Your task to perform on an android device: Go to Reddit.com Image 0: 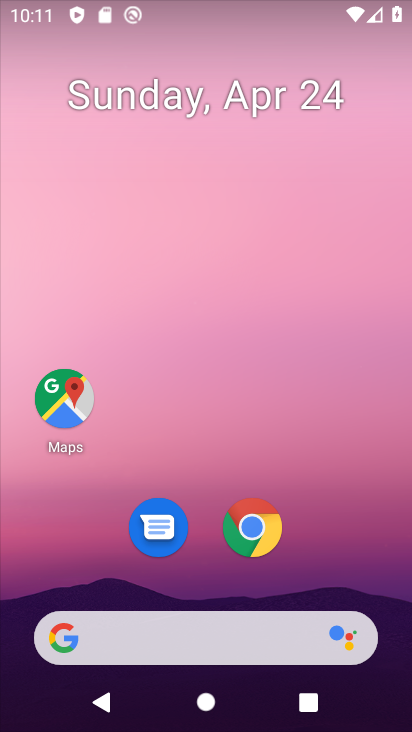
Step 0: click (248, 517)
Your task to perform on an android device: Go to Reddit.com Image 1: 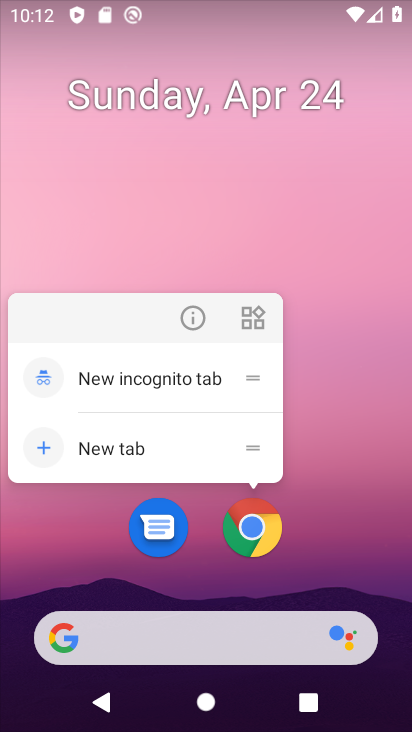
Step 1: click (240, 525)
Your task to perform on an android device: Go to Reddit.com Image 2: 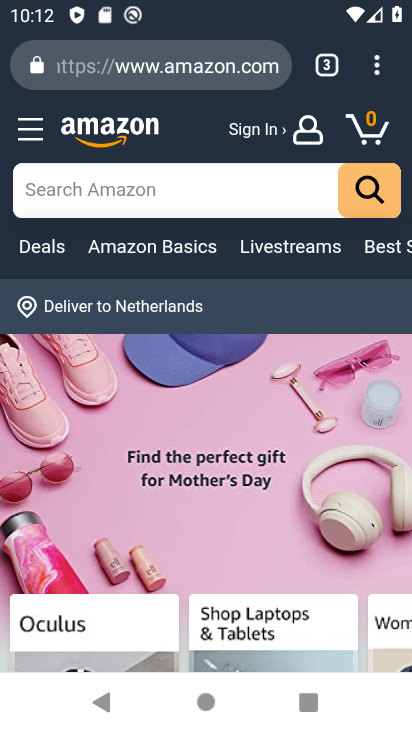
Step 2: click (329, 66)
Your task to perform on an android device: Go to Reddit.com Image 3: 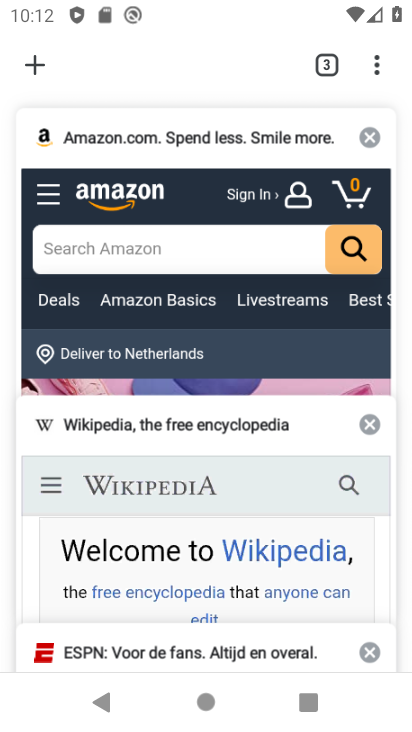
Step 3: click (34, 55)
Your task to perform on an android device: Go to Reddit.com Image 4: 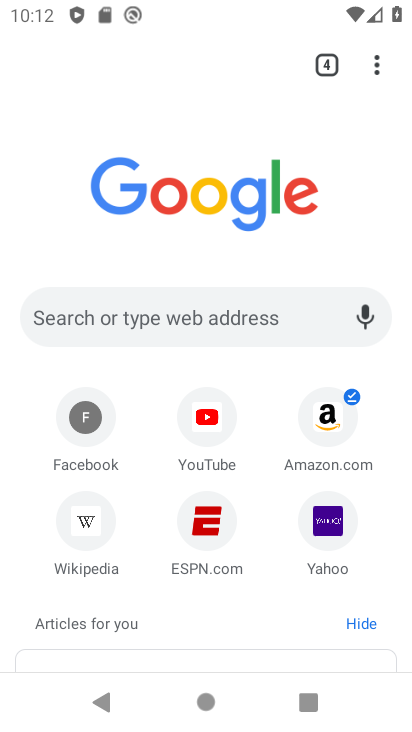
Step 4: click (128, 307)
Your task to perform on an android device: Go to Reddit.com Image 5: 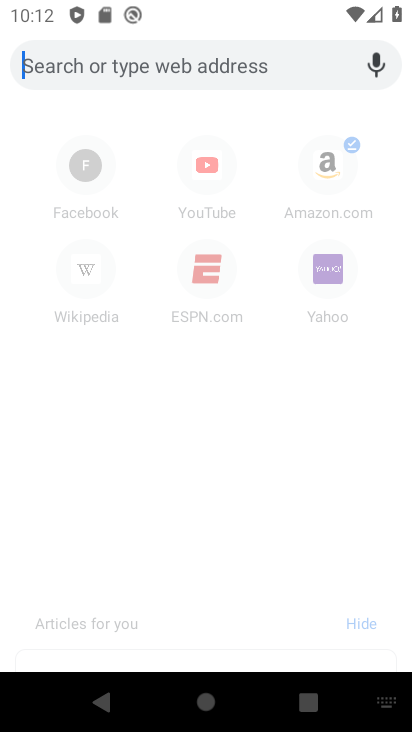
Step 5: type "reddit.com"
Your task to perform on an android device: Go to Reddit.com Image 6: 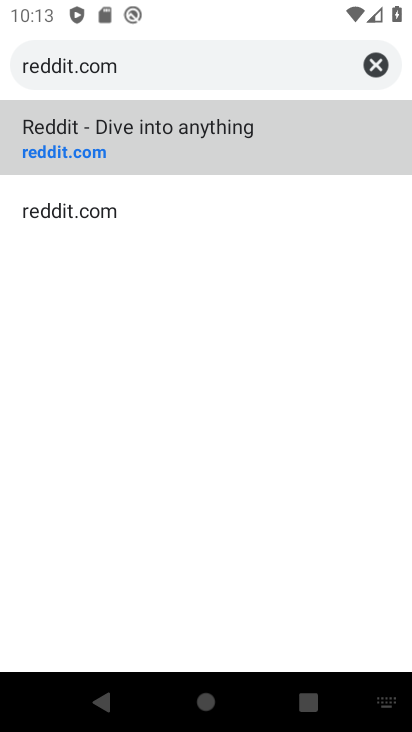
Step 6: click (186, 130)
Your task to perform on an android device: Go to Reddit.com Image 7: 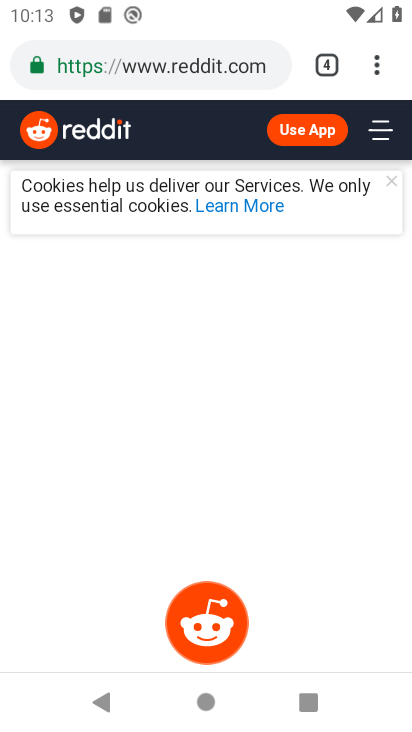
Step 7: task complete